Your task to perform on an android device: check out phone information Image 0: 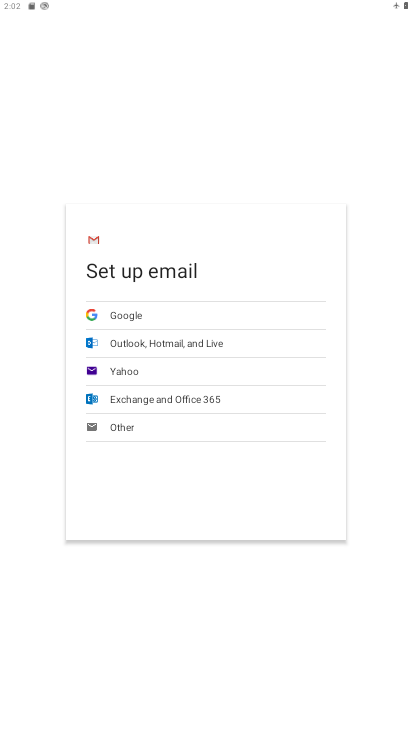
Step 0: press home button
Your task to perform on an android device: check out phone information Image 1: 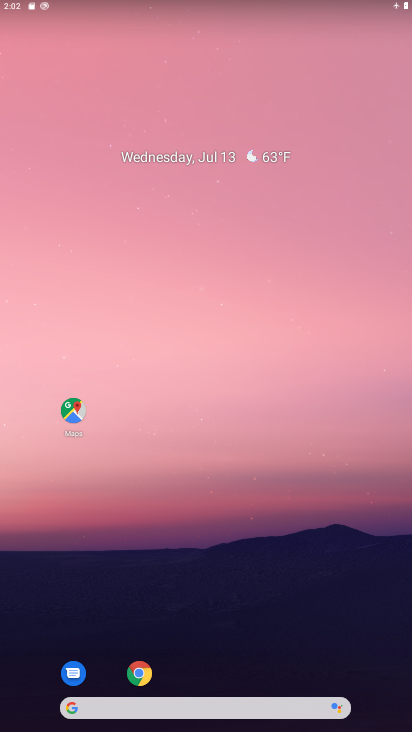
Step 1: drag from (221, 562) to (222, 314)
Your task to perform on an android device: check out phone information Image 2: 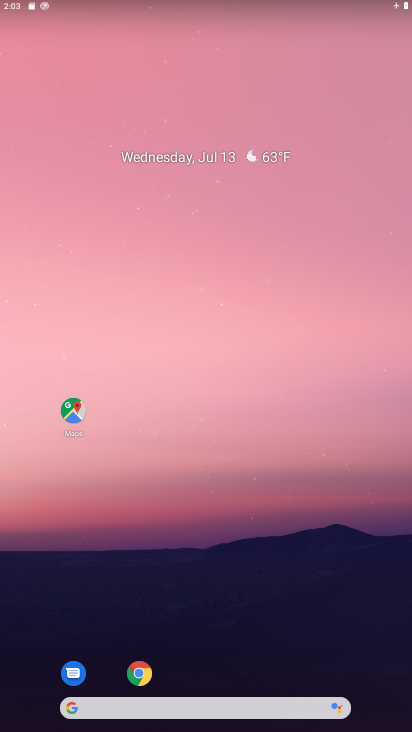
Step 2: drag from (184, 629) to (230, 84)
Your task to perform on an android device: check out phone information Image 3: 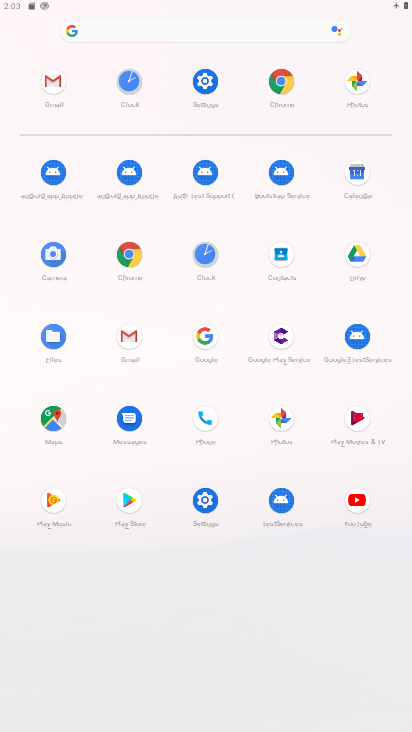
Step 3: click (214, 68)
Your task to perform on an android device: check out phone information Image 4: 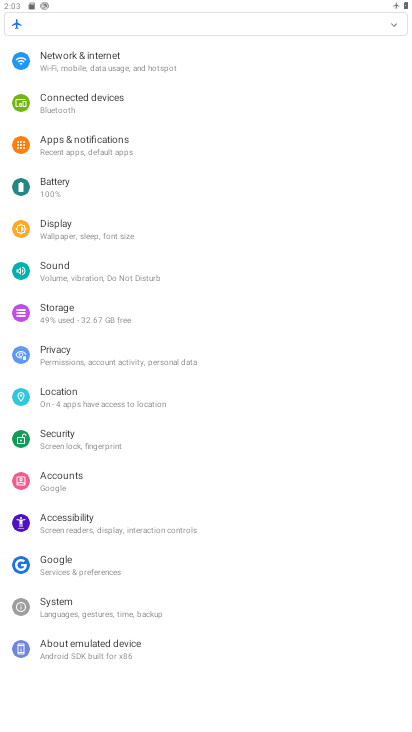
Step 4: click (120, 659)
Your task to perform on an android device: check out phone information Image 5: 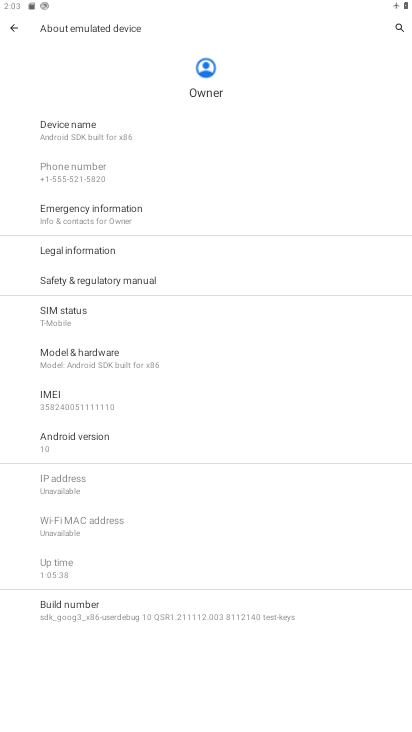
Step 5: task complete